Your task to perform on an android device: empty trash in the gmail app Image 0: 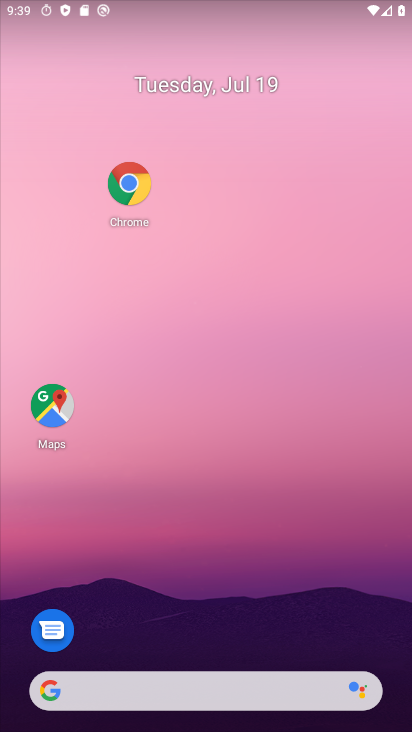
Step 0: drag from (225, 657) to (276, 563)
Your task to perform on an android device: empty trash in the gmail app Image 1: 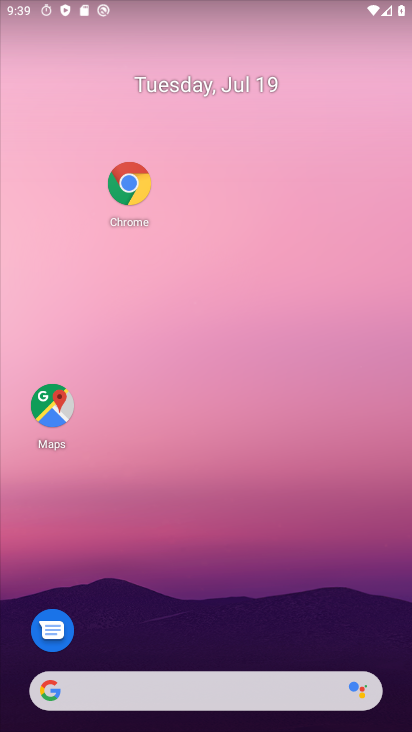
Step 1: click (222, 406)
Your task to perform on an android device: empty trash in the gmail app Image 2: 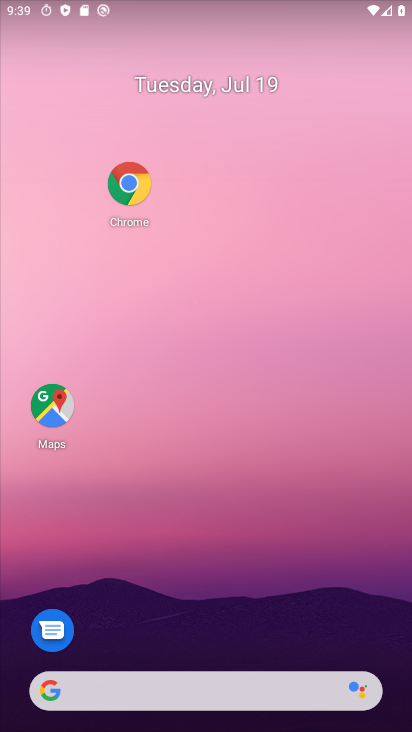
Step 2: drag from (228, 652) to (132, 4)
Your task to perform on an android device: empty trash in the gmail app Image 3: 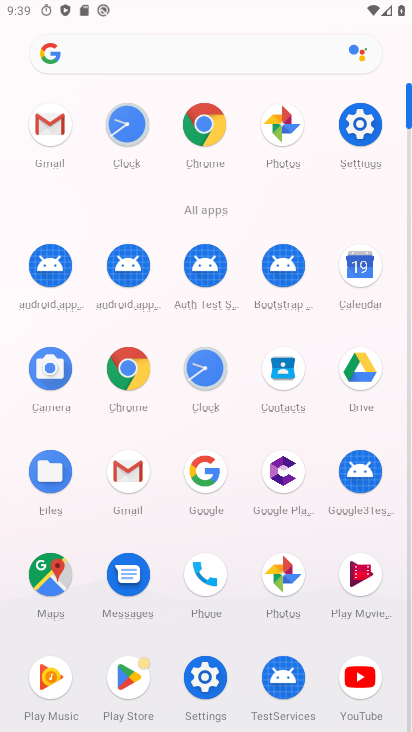
Step 3: click (262, 128)
Your task to perform on an android device: empty trash in the gmail app Image 4: 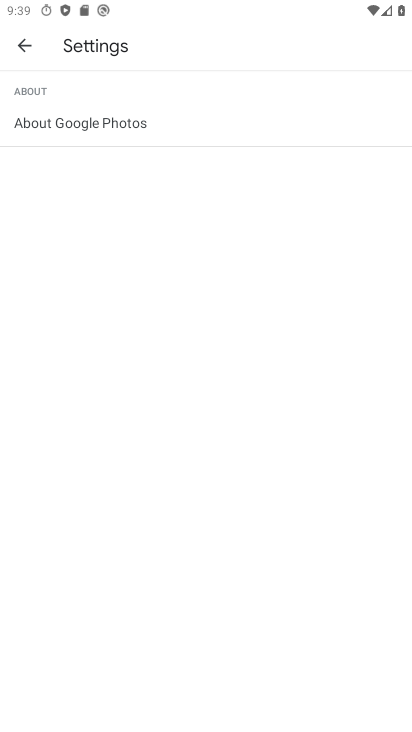
Step 4: click (26, 44)
Your task to perform on an android device: empty trash in the gmail app Image 5: 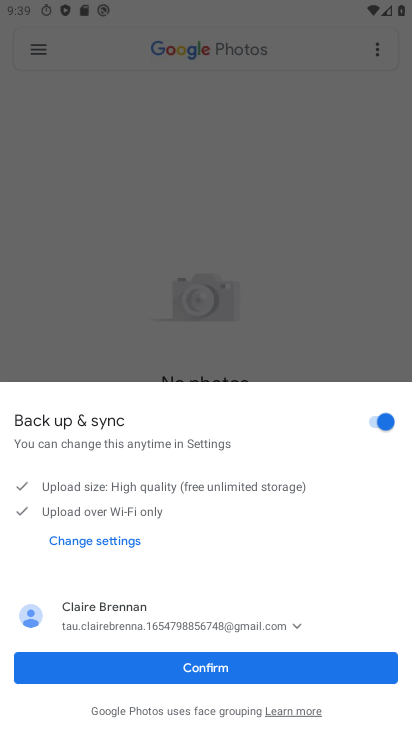
Step 5: click (138, 657)
Your task to perform on an android device: empty trash in the gmail app Image 6: 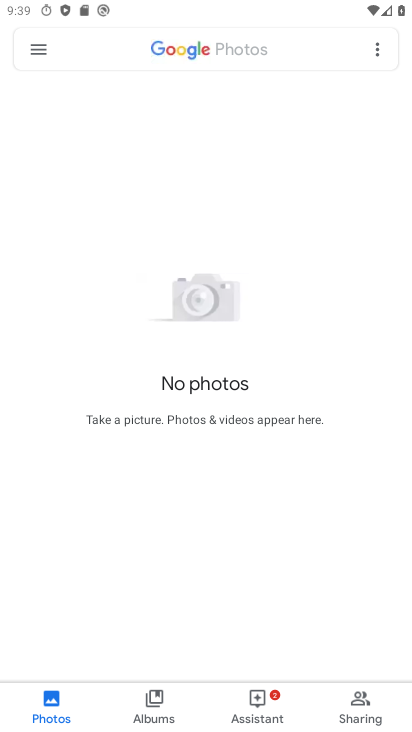
Step 6: click (32, 46)
Your task to perform on an android device: empty trash in the gmail app Image 7: 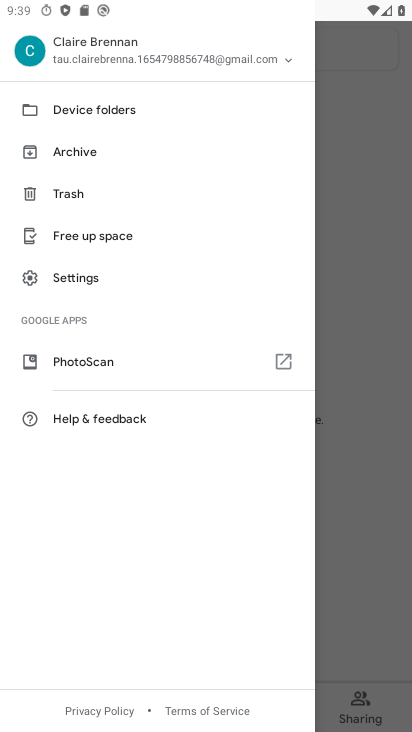
Step 7: click (89, 199)
Your task to perform on an android device: empty trash in the gmail app Image 8: 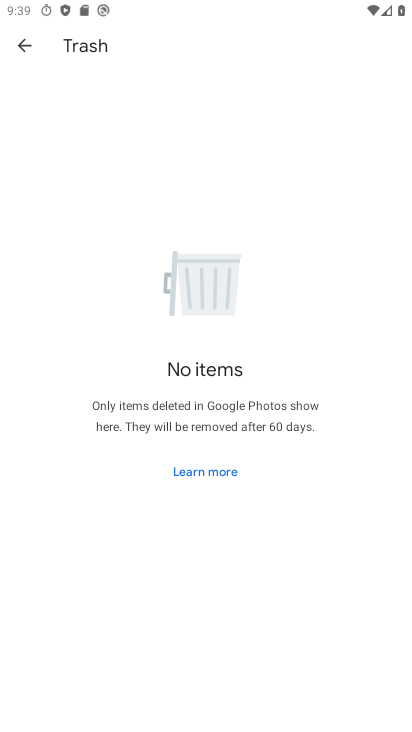
Step 8: task complete